Your task to perform on an android device: What is the news today? Image 0: 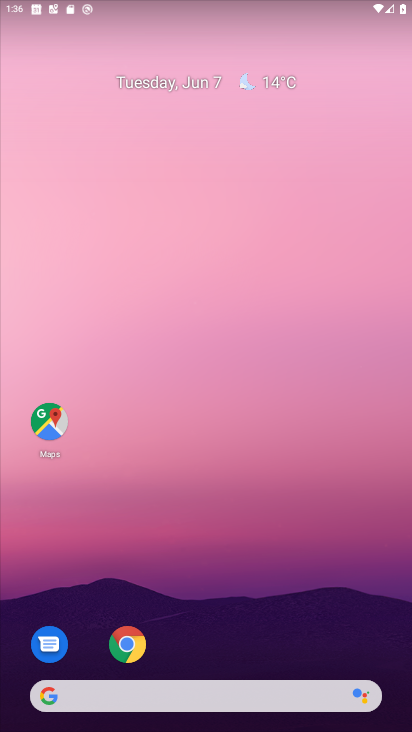
Step 0: click (178, 681)
Your task to perform on an android device: What is the news today? Image 1: 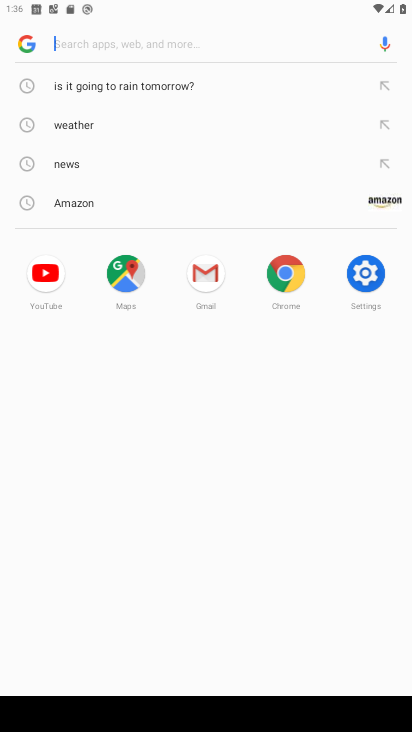
Step 1: type "what is the news today"
Your task to perform on an android device: What is the news today? Image 2: 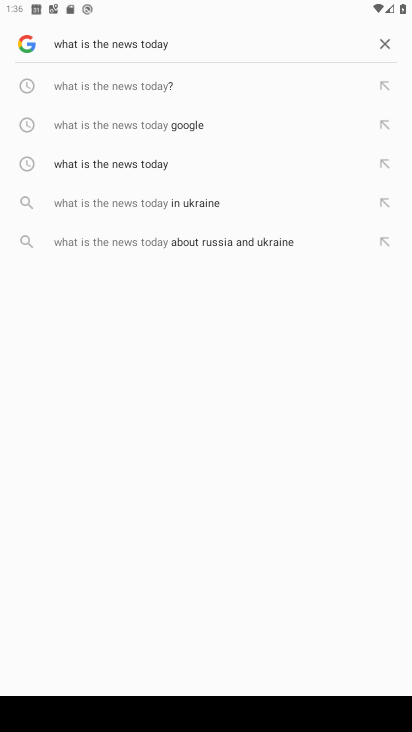
Step 2: click (119, 82)
Your task to perform on an android device: What is the news today? Image 3: 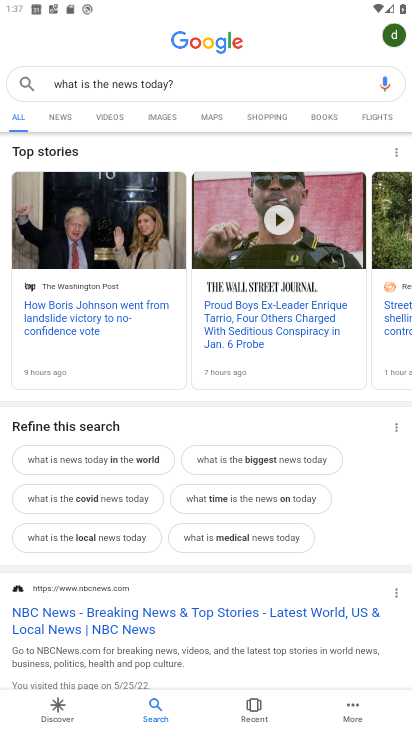
Step 3: task complete